Your task to perform on an android device: Play the last video I watched on Youtube Image 0: 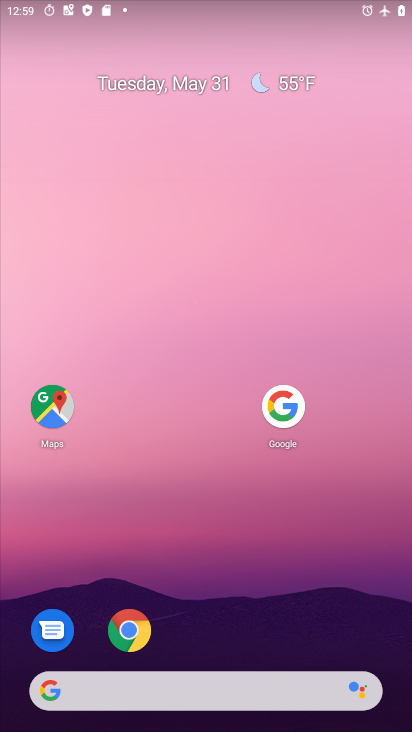
Step 0: drag from (137, 690) to (289, 269)
Your task to perform on an android device: Play the last video I watched on Youtube Image 1: 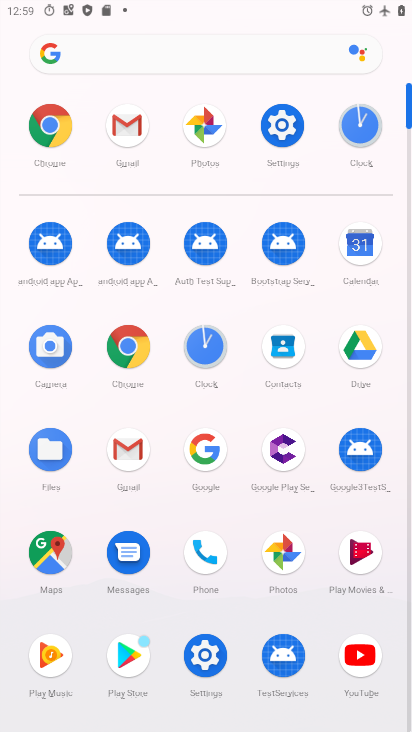
Step 1: click (360, 659)
Your task to perform on an android device: Play the last video I watched on Youtube Image 2: 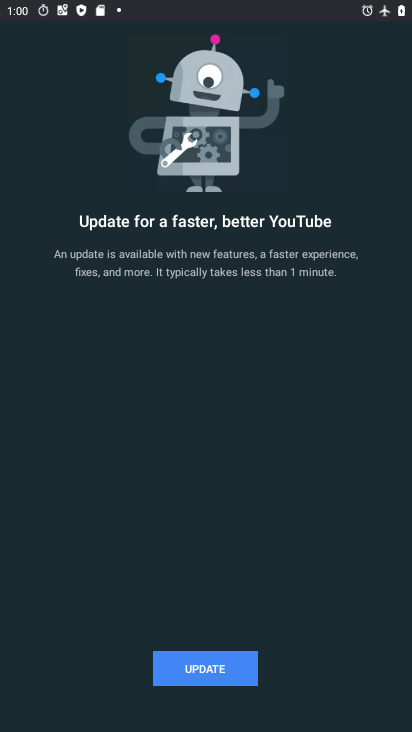
Step 2: click (210, 683)
Your task to perform on an android device: Play the last video I watched on Youtube Image 3: 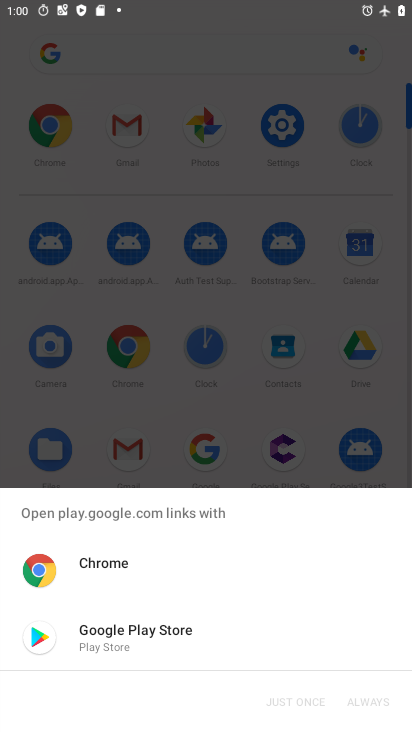
Step 3: click (129, 639)
Your task to perform on an android device: Play the last video I watched on Youtube Image 4: 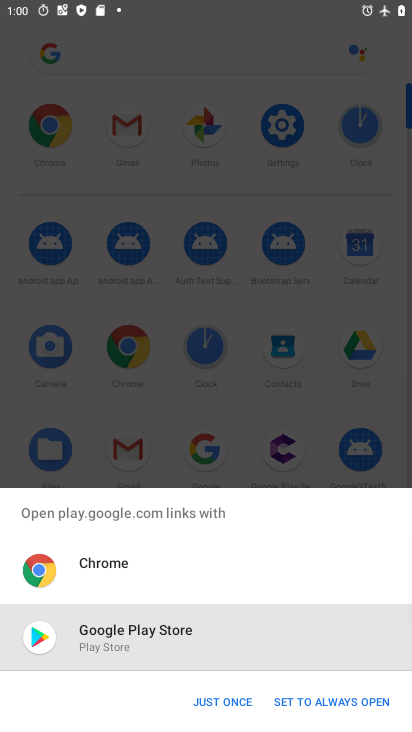
Step 4: click (221, 707)
Your task to perform on an android device: Play the last video I watched on Youtube Image 5: 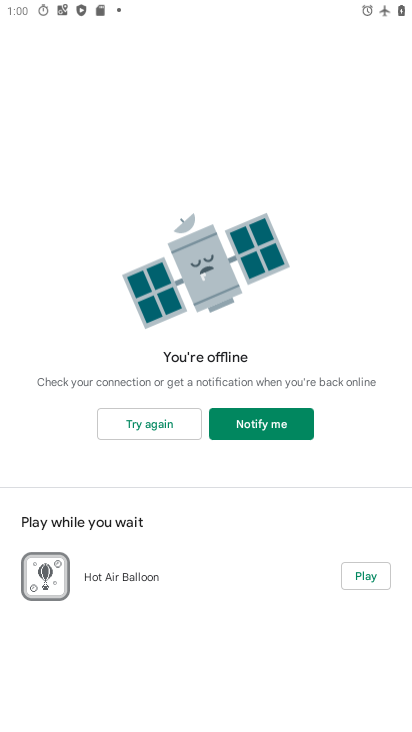
Step 5: click (177, 428)
Your task to perform on an android device: Play the last video I watched on Youtube Image 6: 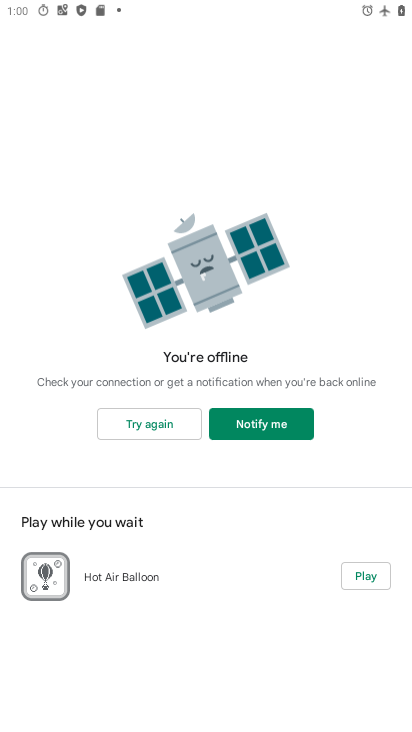
Step 6: task complete